Your task to perform on an android device: open wifi settings Image 0: 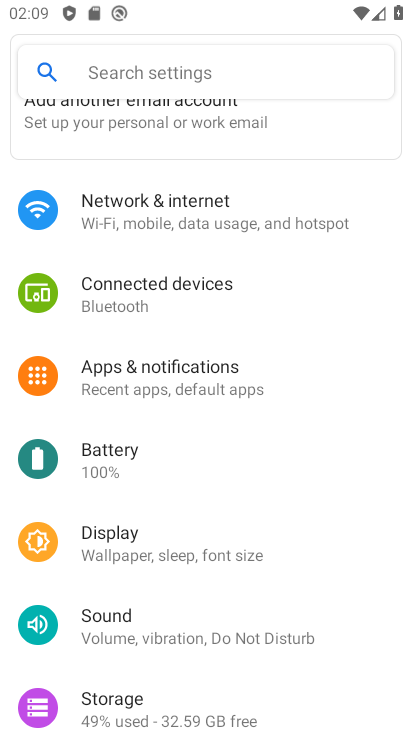
Step 0: click (246, 209)
Your task to perform on an android device: open wifi settings Image 1: 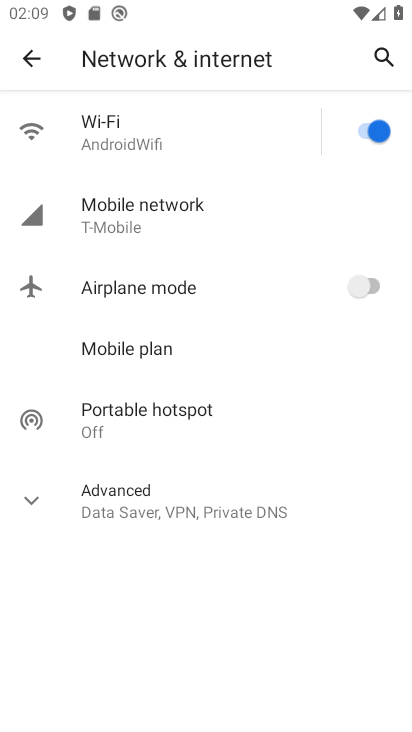
Step 1: click (132, 128)
Your task to perform on an android device: open wifi settings Image 2: 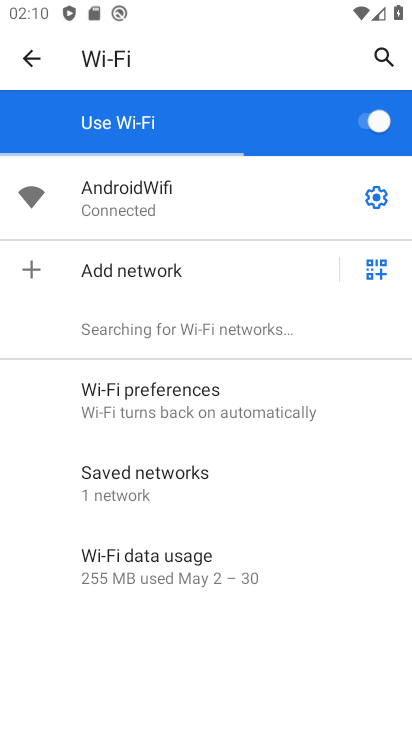
Step 2: task complete